Your task to perform on an android device: turn on improve location accuracy Image 0: 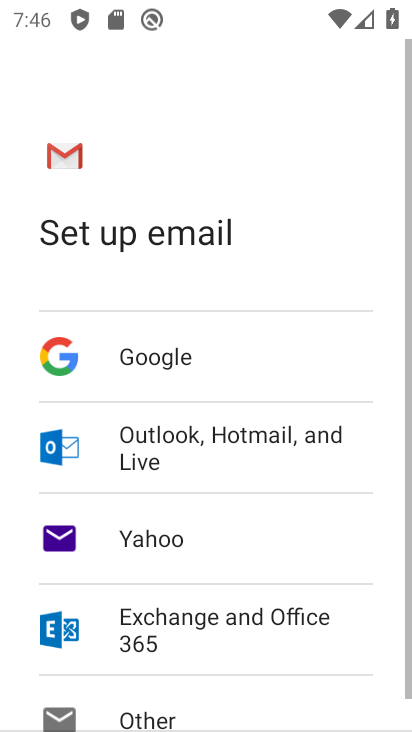
Step 0: press home button
Your task to perform on an android device: turn on improve location accuracy Image 1: 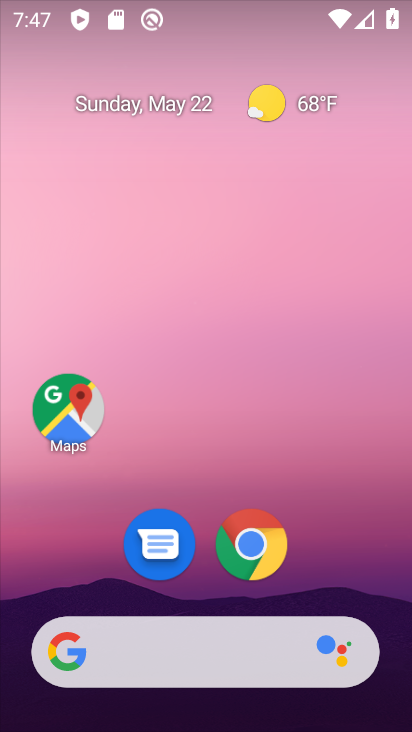
Step 1: press home button
Your task to perform on an android device: turn on improve location accuracy Image 2: 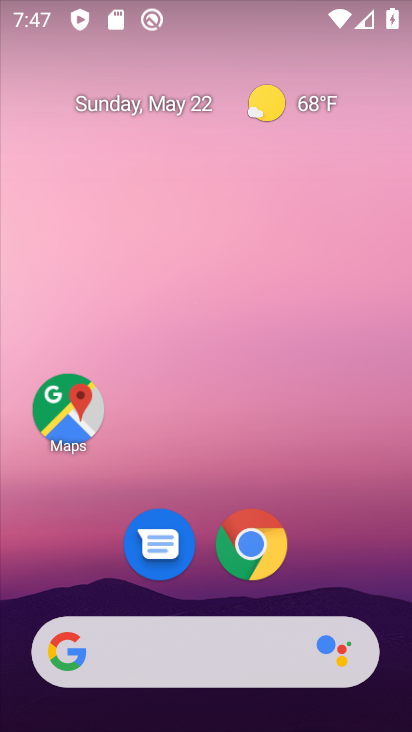
Step 2: press home button
Your task to perform on an android device: turn on improve location accuracy Image 3: 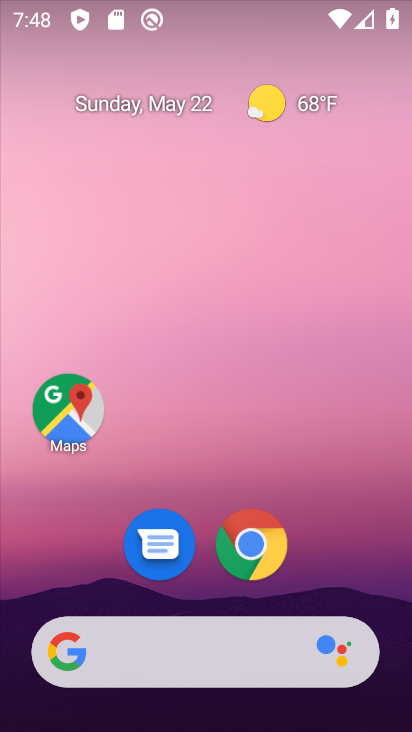
Step 3: drag from (388, 709) to (296, 149)
Your task to perform on an android device: turn on improve location accuracy Image 4: 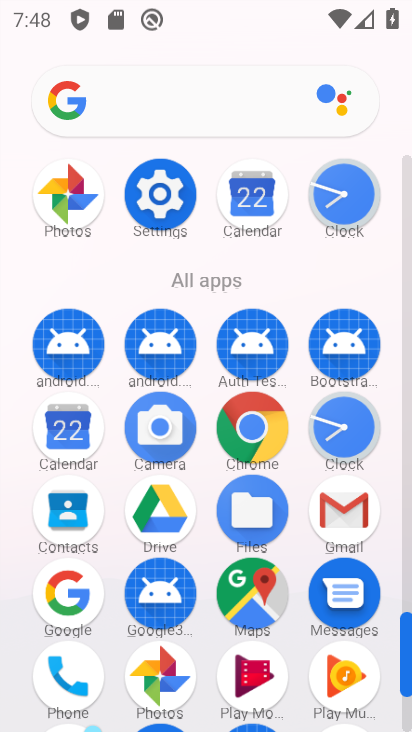
Step 4: click (179, 204)
Your task to perform on an android device: turn on improve location accuracy Image 5: 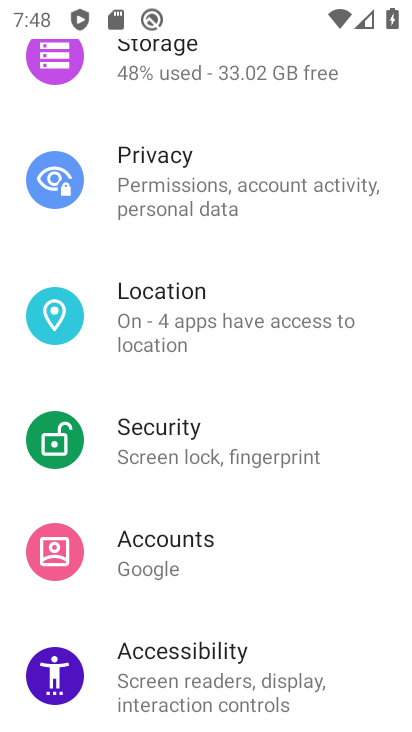
Step 5: click (181, 284)
Your task to perform on an android device: turn on improve location accuracy Image 6: 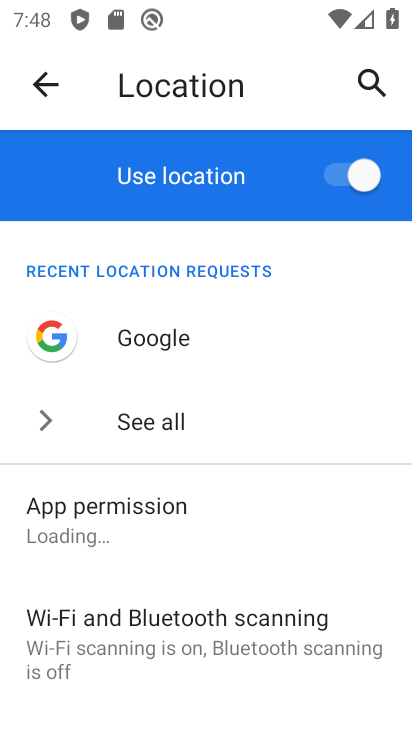
Step 6: drag from (370, 688) to (321, 211)
Your task to perform on an android device: turn on improve location accuracy Image 7: 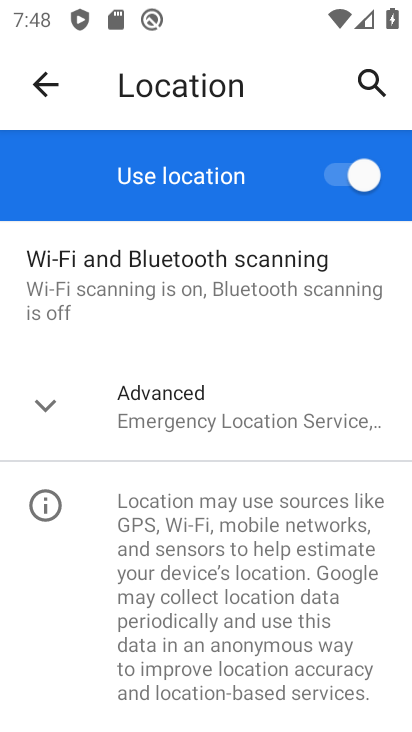
Step 7: click (46, 399)
Your task to perform on an android device: turn on improve location accuracy Image 8: 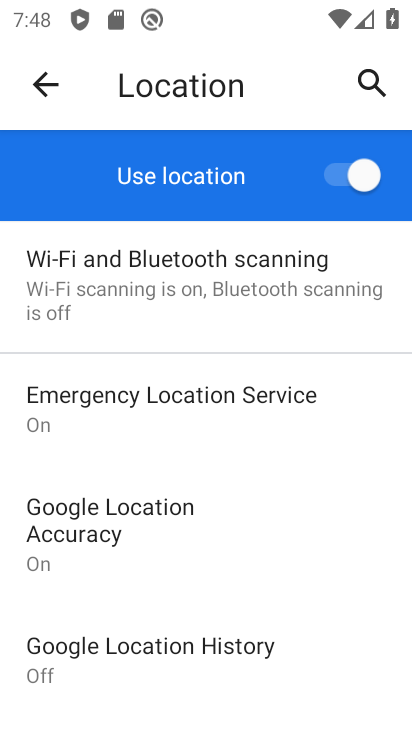
Step 8: click (95, 529)
Your task to perform on an android device: turn on improve location accuracy Image 9: 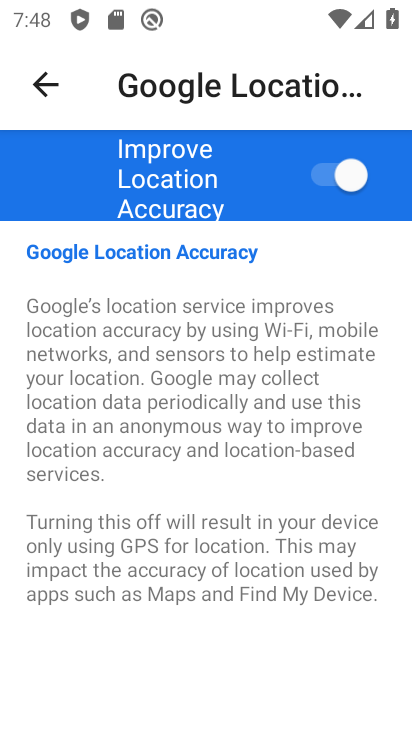
Step 9: task complete